Your task to perform on an android device: change timer sound Image 0: 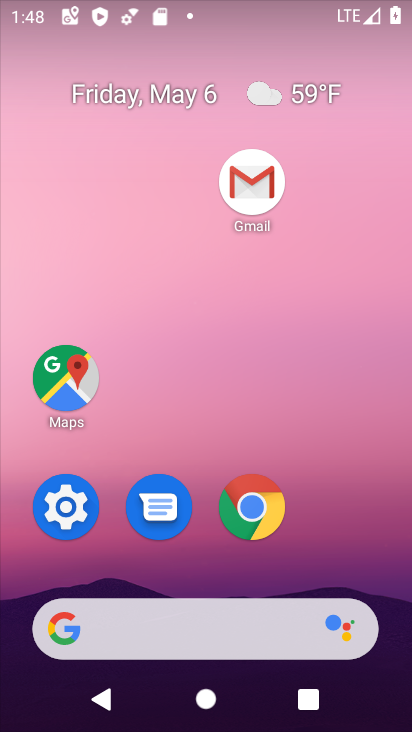
Step 0: drag from (342, 506) to (319, 65)
Your task to perform on an android device: change timer sound Image 1: 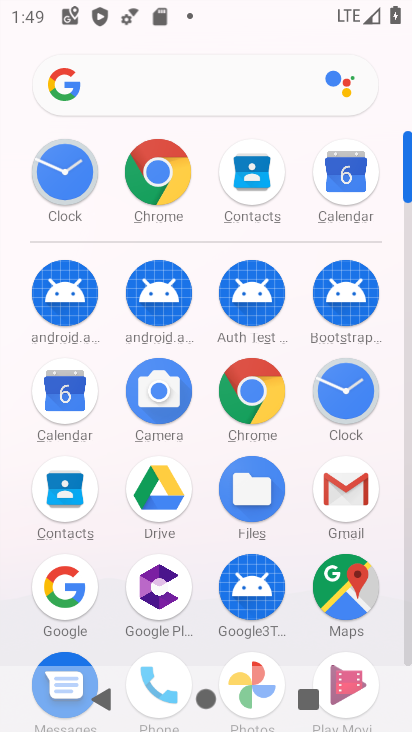
Step 1: click (349, 401)
Your task to perform on an android device: change timer sound Image 2: 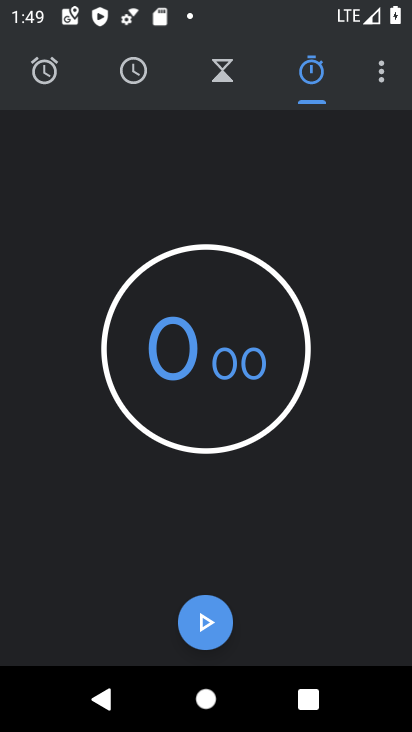
Step 2: click (381, 74)
Your task to perform on an android device: change timer sound Image 3: 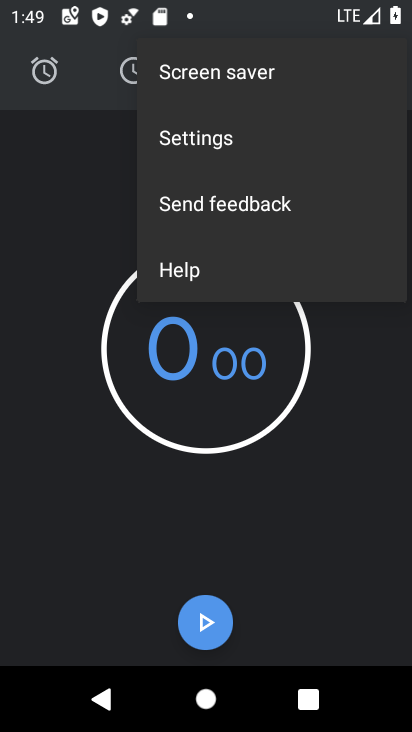
Step 3: click (198, 138)
Your task to perform on an android device: change timer sound Image 4: 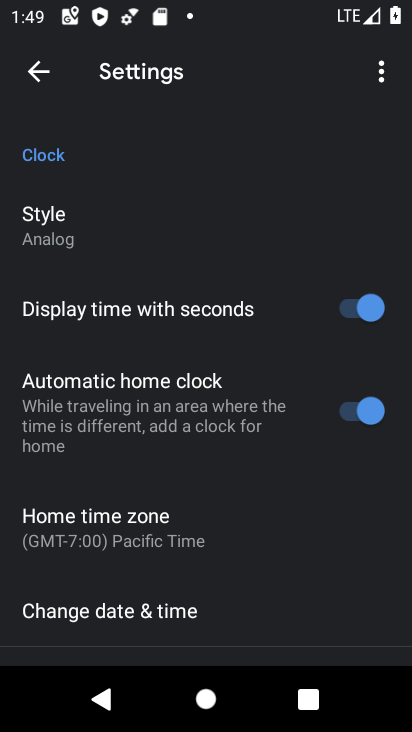
Step 4: drag from (256, 495) to (250, 222)
Your task to perform on an android device: change timer sound Image 5: 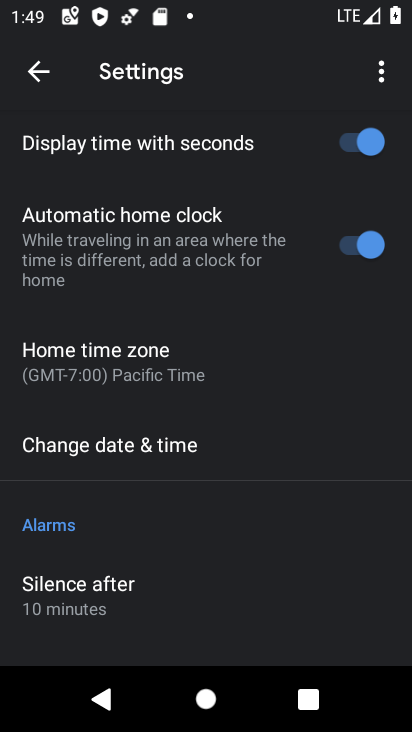
Step 5: drag from (191, 516) to (176, 195)
Your task to perform on an android device: change timer sound Image 6: 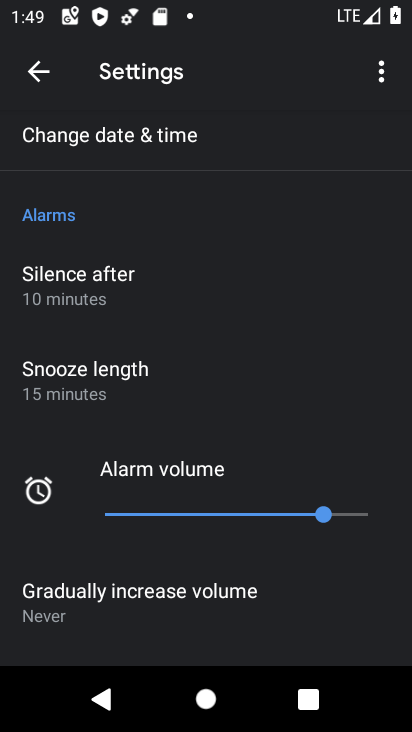
Step 6: drag from (190, 570) to (169, 296)
Your task to perform on an android device: change timer sound Image 7: 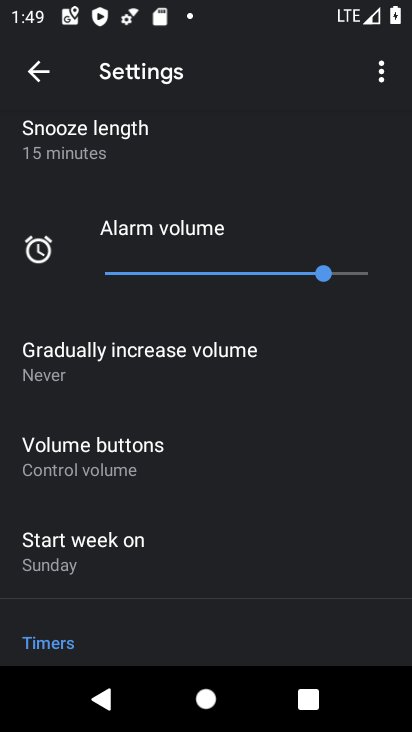
Step 7: drag from (170, 543) to (123, 320)
Your task to perform on an android device: change timer sound Image 8: 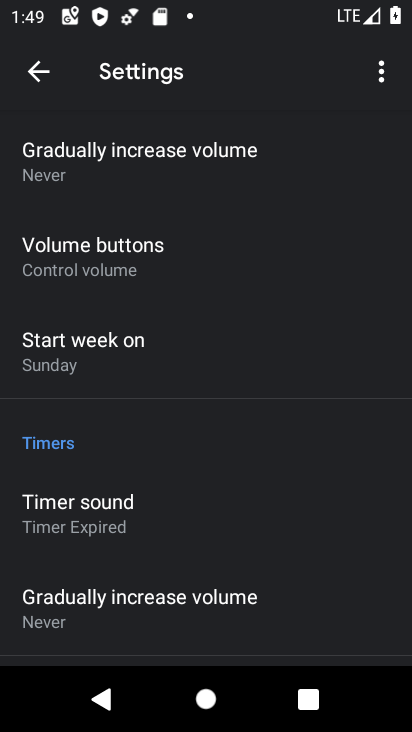
Step 8: click (106, 502)
Your task to perform on an android device: change timer sound Image 9: 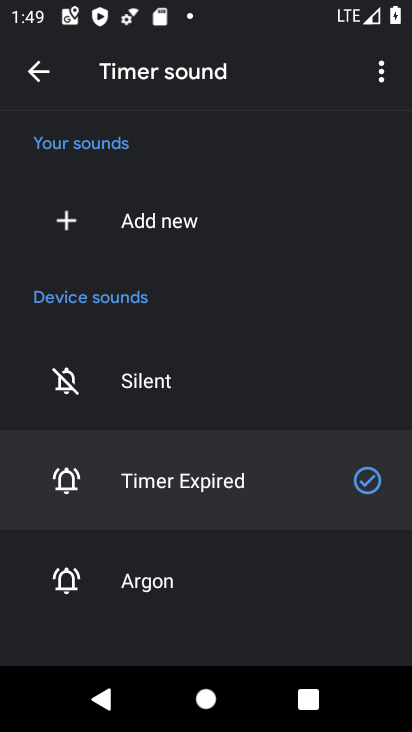
Step 9: click (136, 373)
Your task to perform on an android device: change timer sound Image 10: 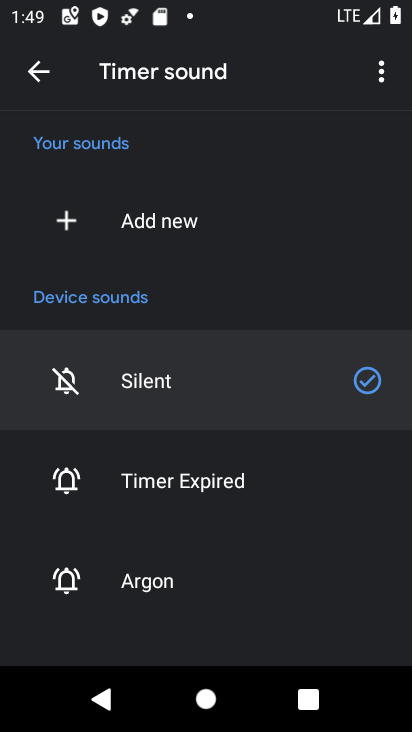
Step 10: click (155, 570)
Your task to perform on an android device: change timer sound Image 11: 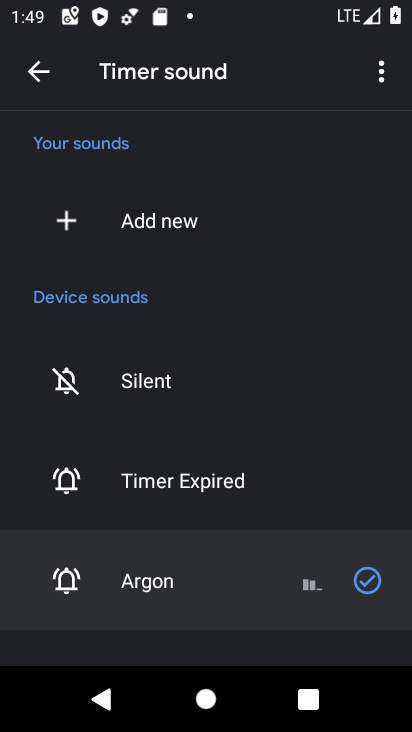
Step 11: task complete